Your task to perform on an android device: show emergency info Image 0: 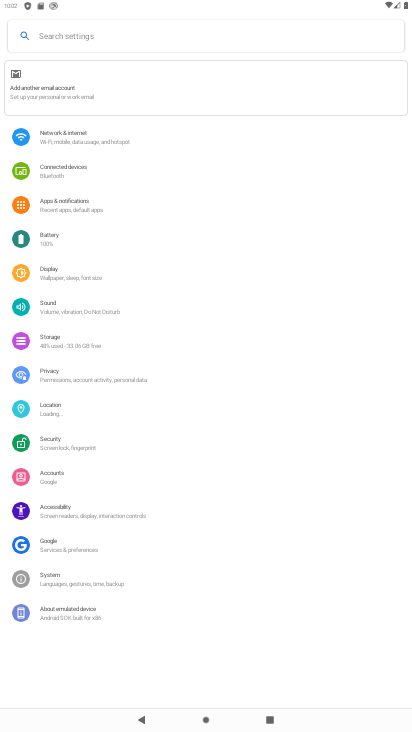
Step 0: click (155, 625)
Your task to perform on an android device: show emergency info Image 1: 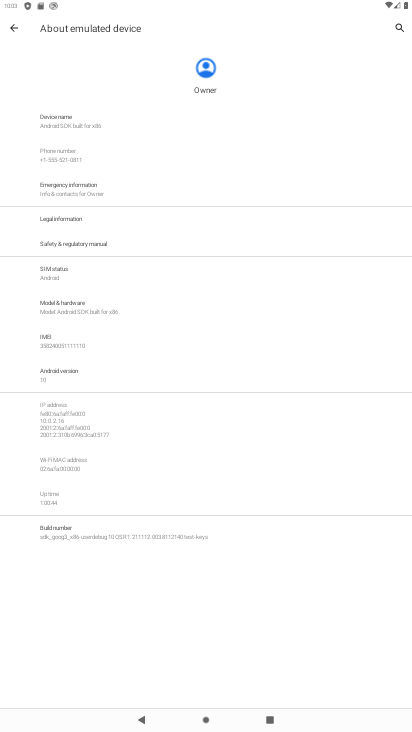
Step 1: task complete